Your task to perform on an android device: delete browsing data in the chrome app Image 0: 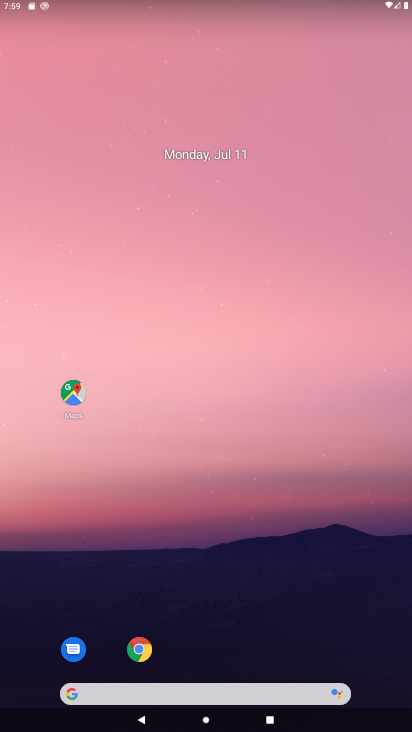
Step 0: click (136, 649)
Your task to perform on an android device: delete browsing data in the chrome app Image 1: 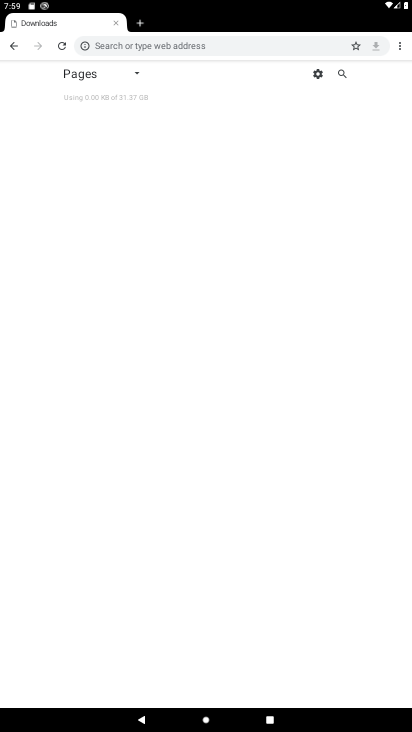
Step 1: click (400, 46)
Your task to perform on an android device: delete browsing data in the chrome app Image 2: 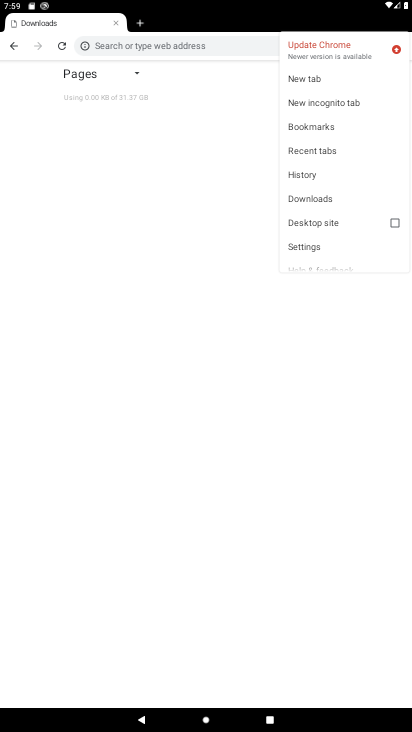
Step 2: click (308, 169)
Your task to perform on an android device: delete browsing data in the chrome app Image 3: 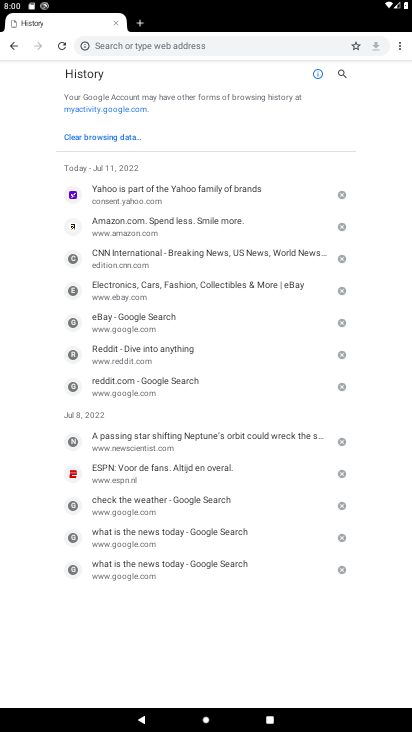
Step 3: click (89, 136)
Your task to perform on an android device: delete browsing data in the chrome app Image 4: 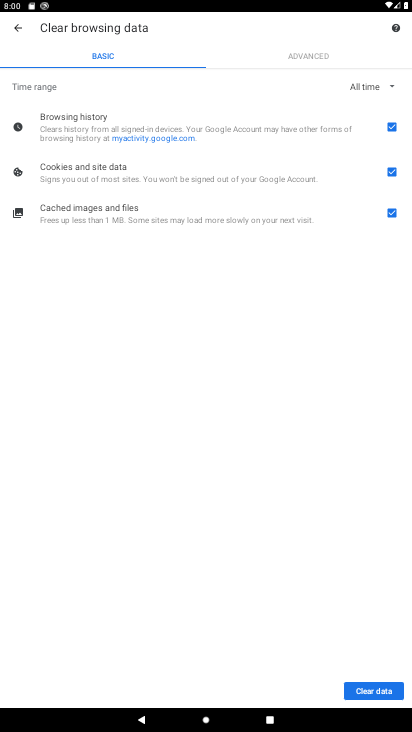
Step 4: click (376, 687)
Your task to perform on an android device: delete browsing data in the chrome app Image 5: 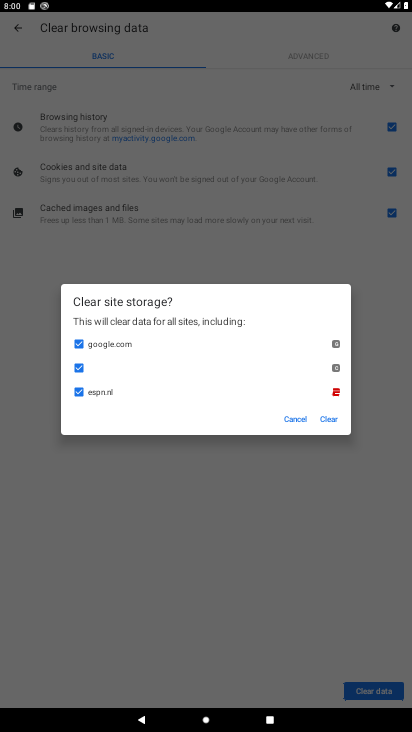
Step 5: click (329, 417)
Your task to perform on an android device: delete browsing data in the chrome app Image 6: 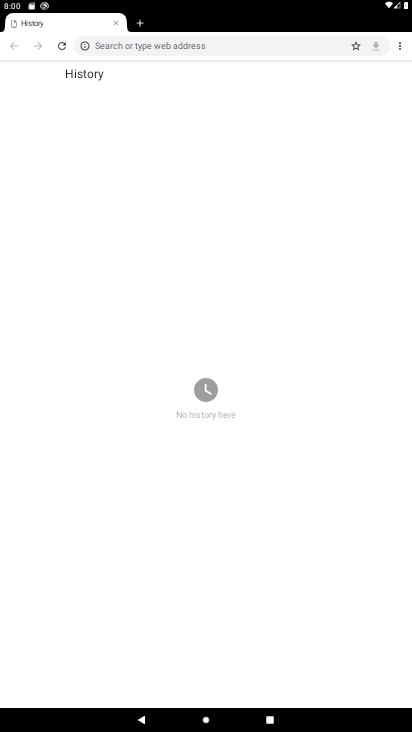
Step 6: task complete